Your task to perform on an android device: see creations saved in the google photos Image 0: 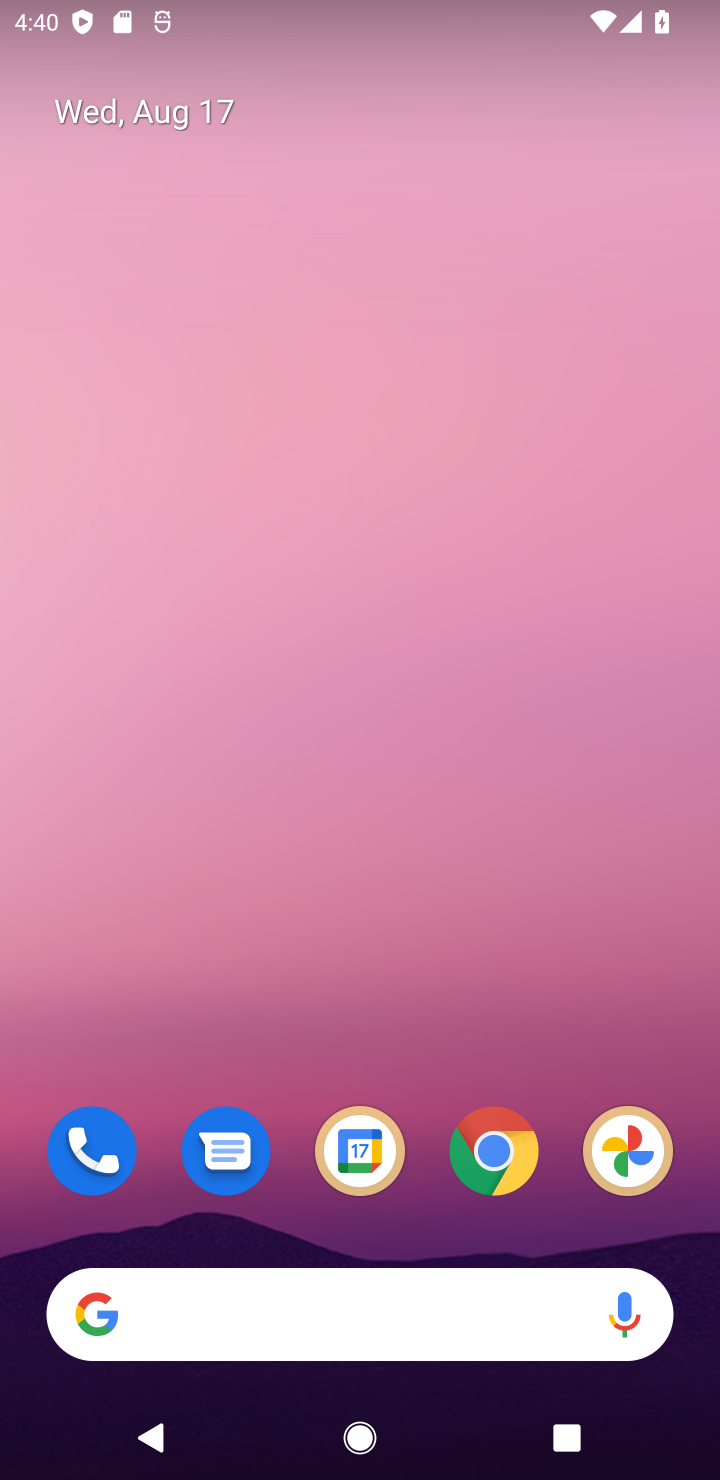
Step 0: click (646, 1141)
Your task to perform on an android device: see creations saved in the google photos Image 1: 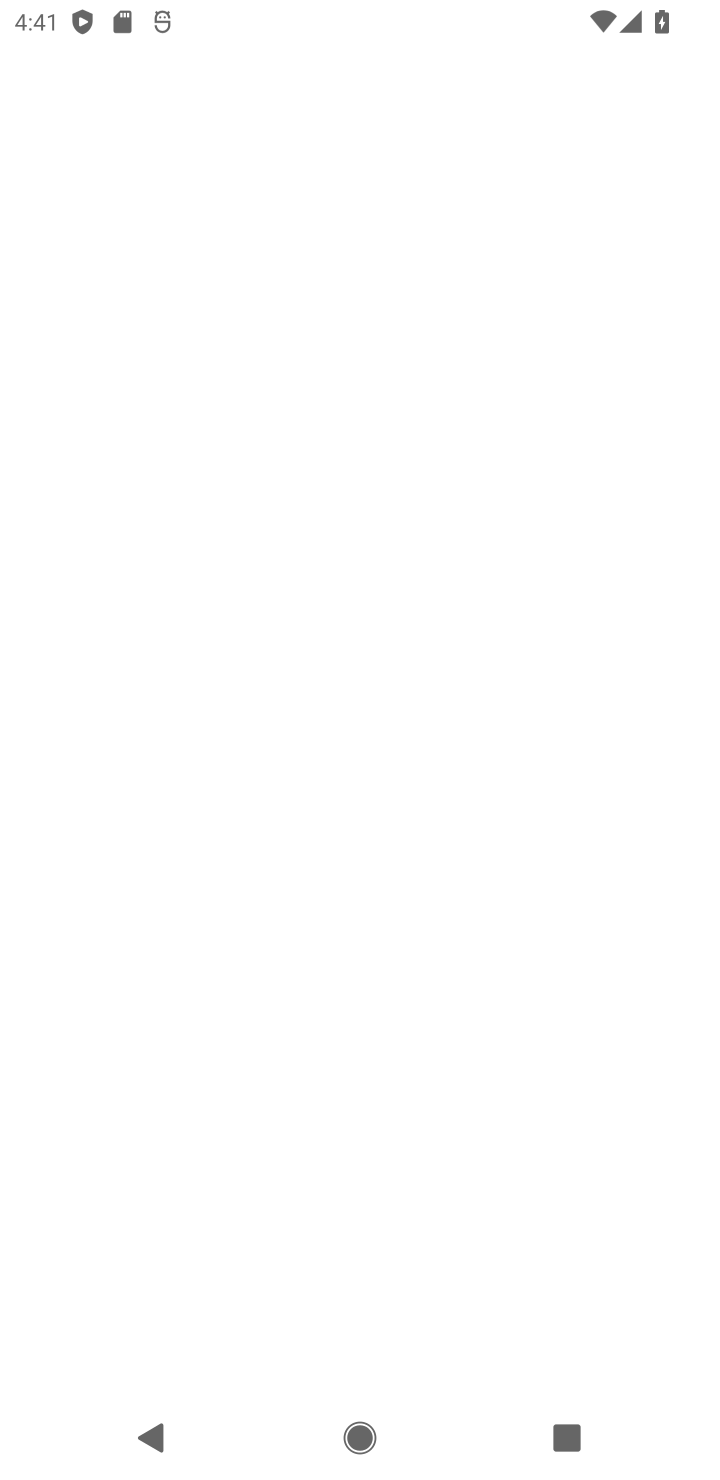
Step 1: task complete